Your task to perform on an android device: Open a new window in Chrome Image 0: 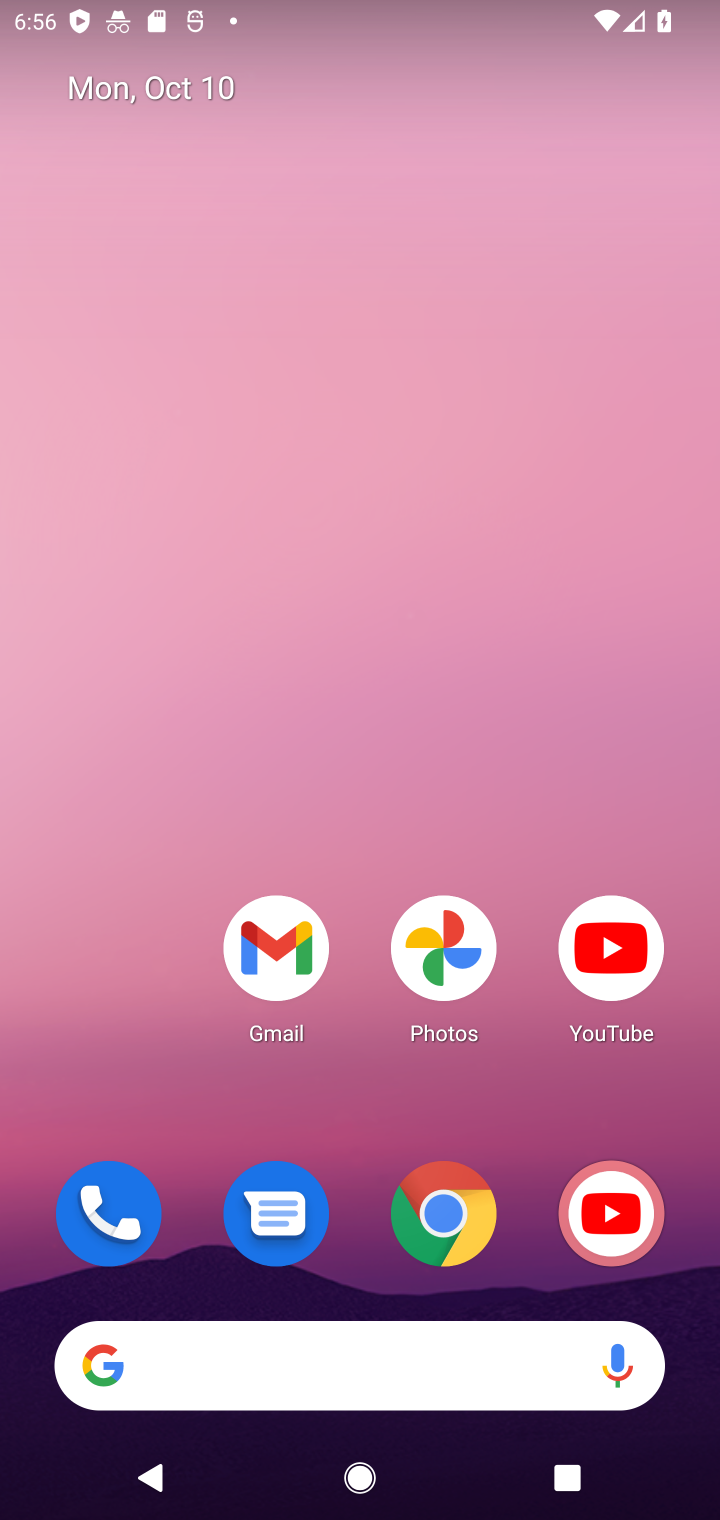
Step 0: click (437, 1198)
Your task to perform on an android device: Open a new window in Chrome Image 1: 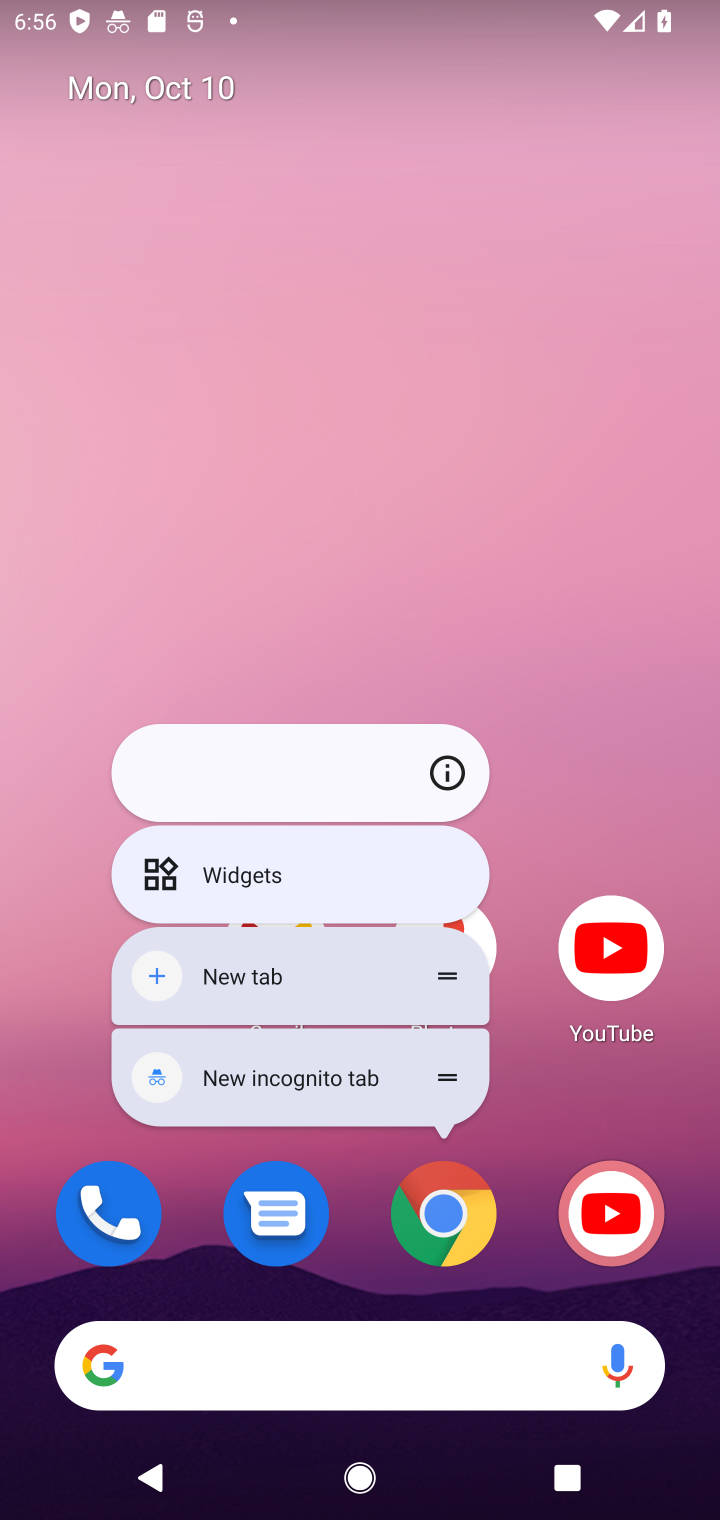
Step 1: click (472, 1204)
Your task to perform on an android device: Open a new window in Chrome Image 2: 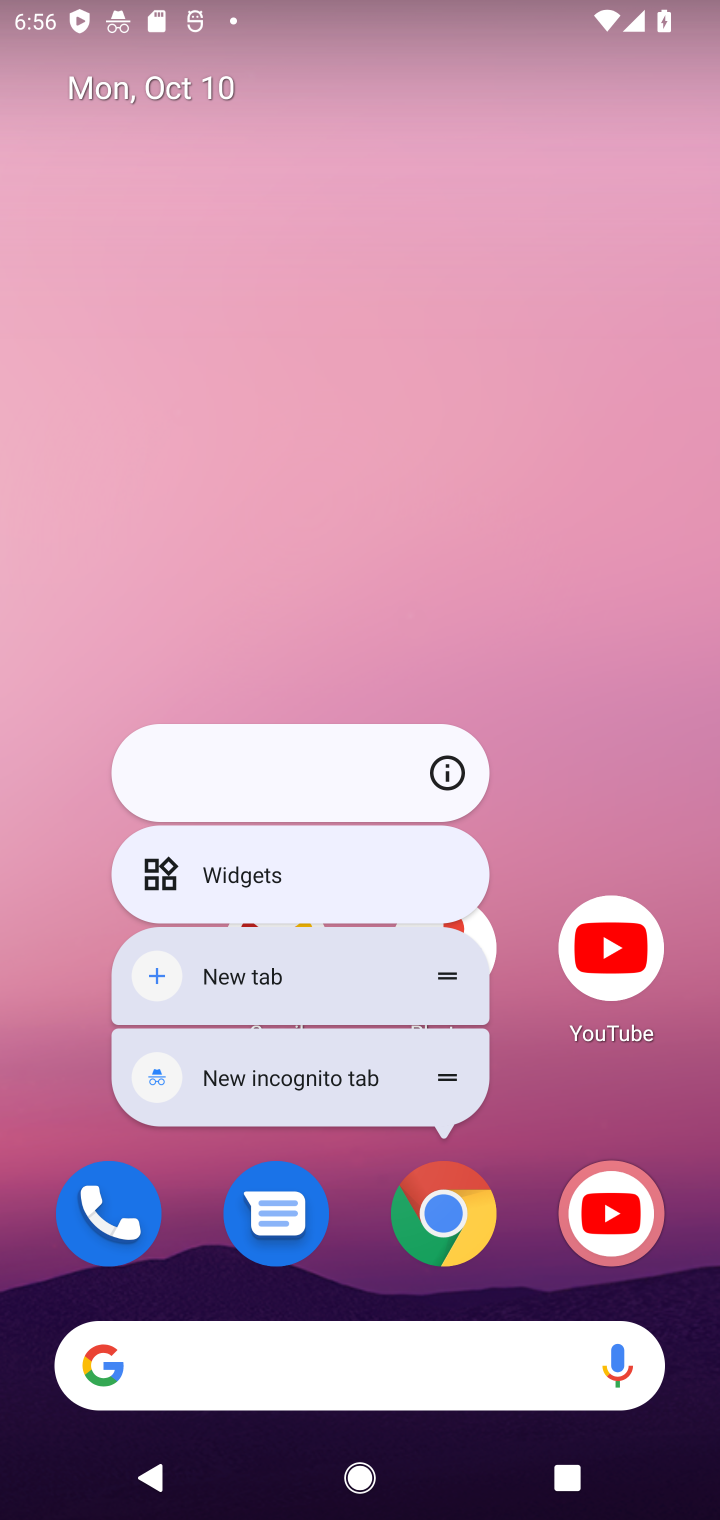
Step 2: click (435, 1223)
Your task to perform on an android device: Open a new window in Chrome Image 3: 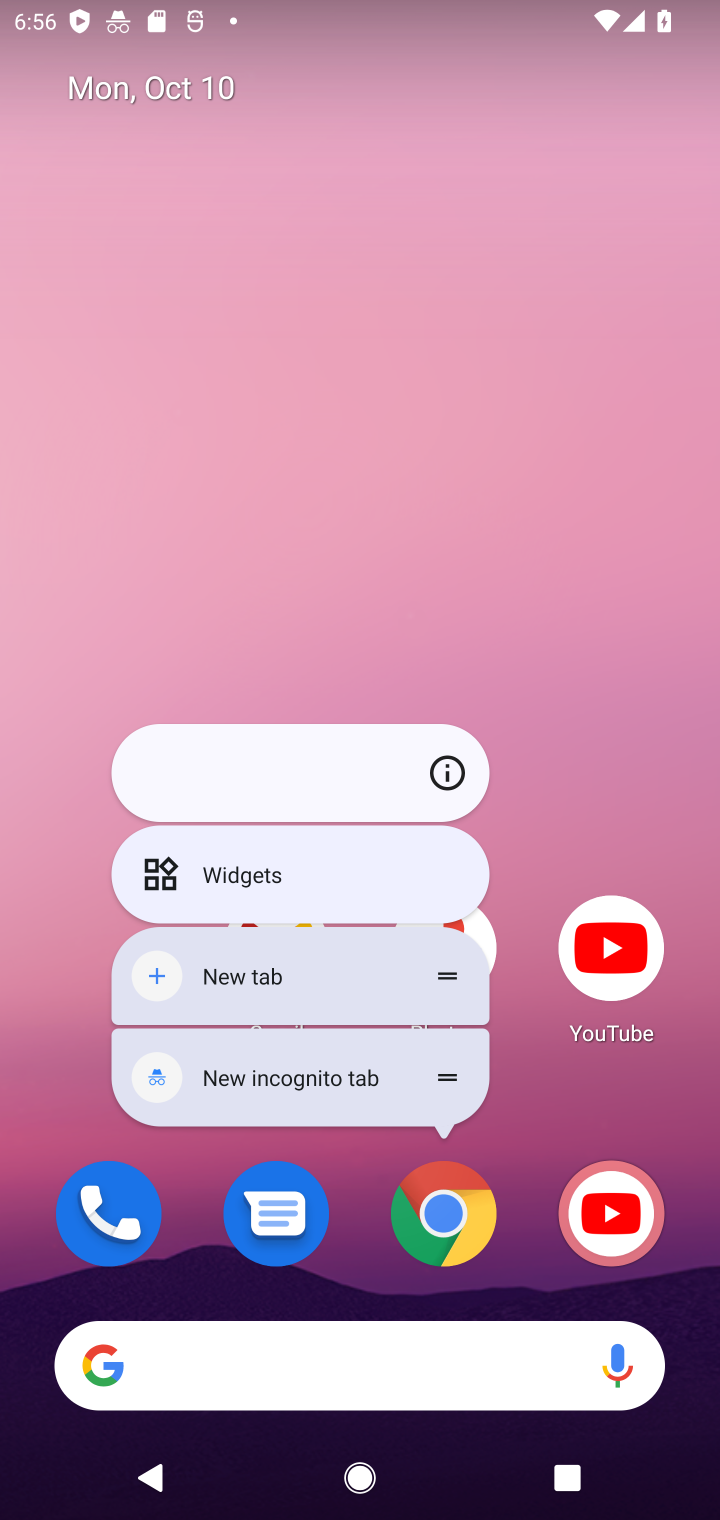
Step 3: click (433, 1217)
Your task to perform on an android device: Open a new window in Chrome Image 4: 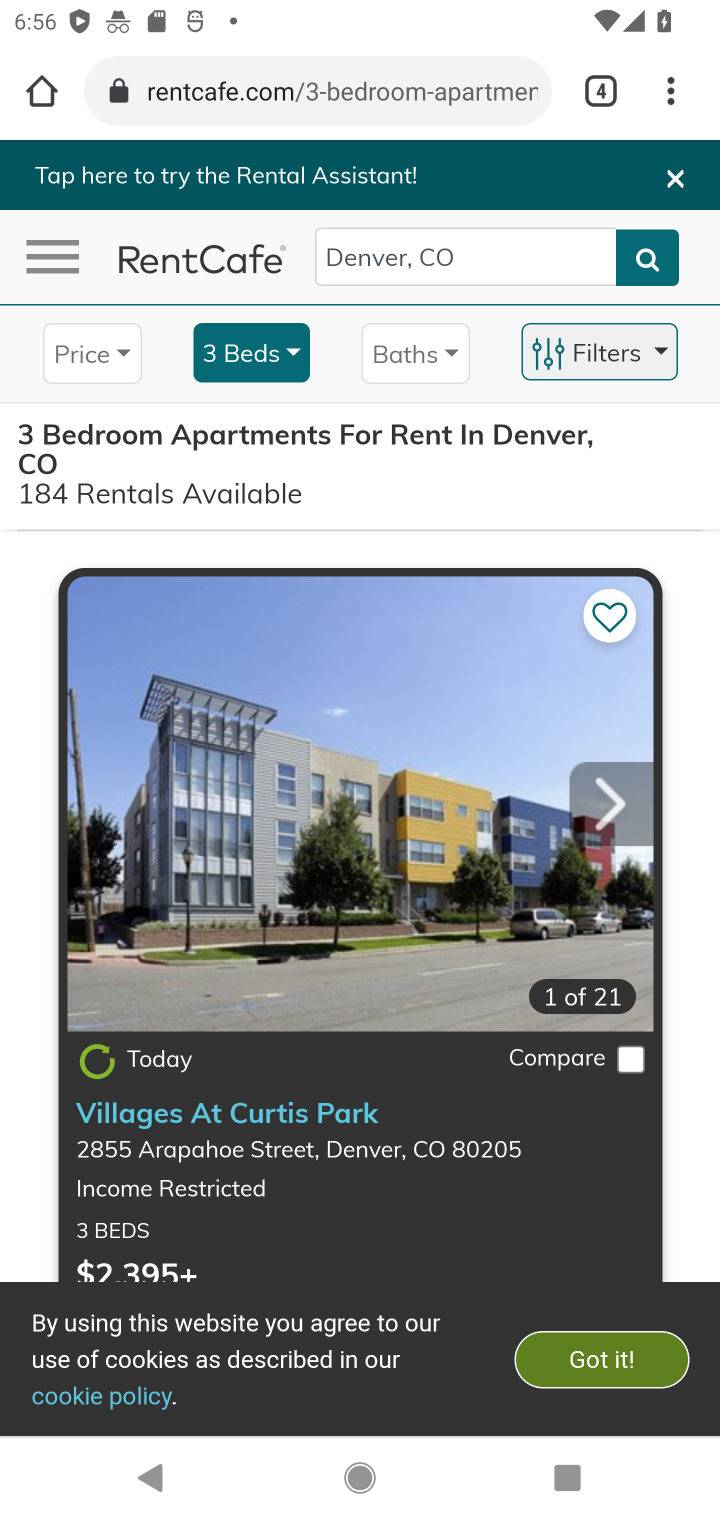
Step 4: click (590, 95)
Your task to perform on an android device: Open a new window in Chrome Image 5: 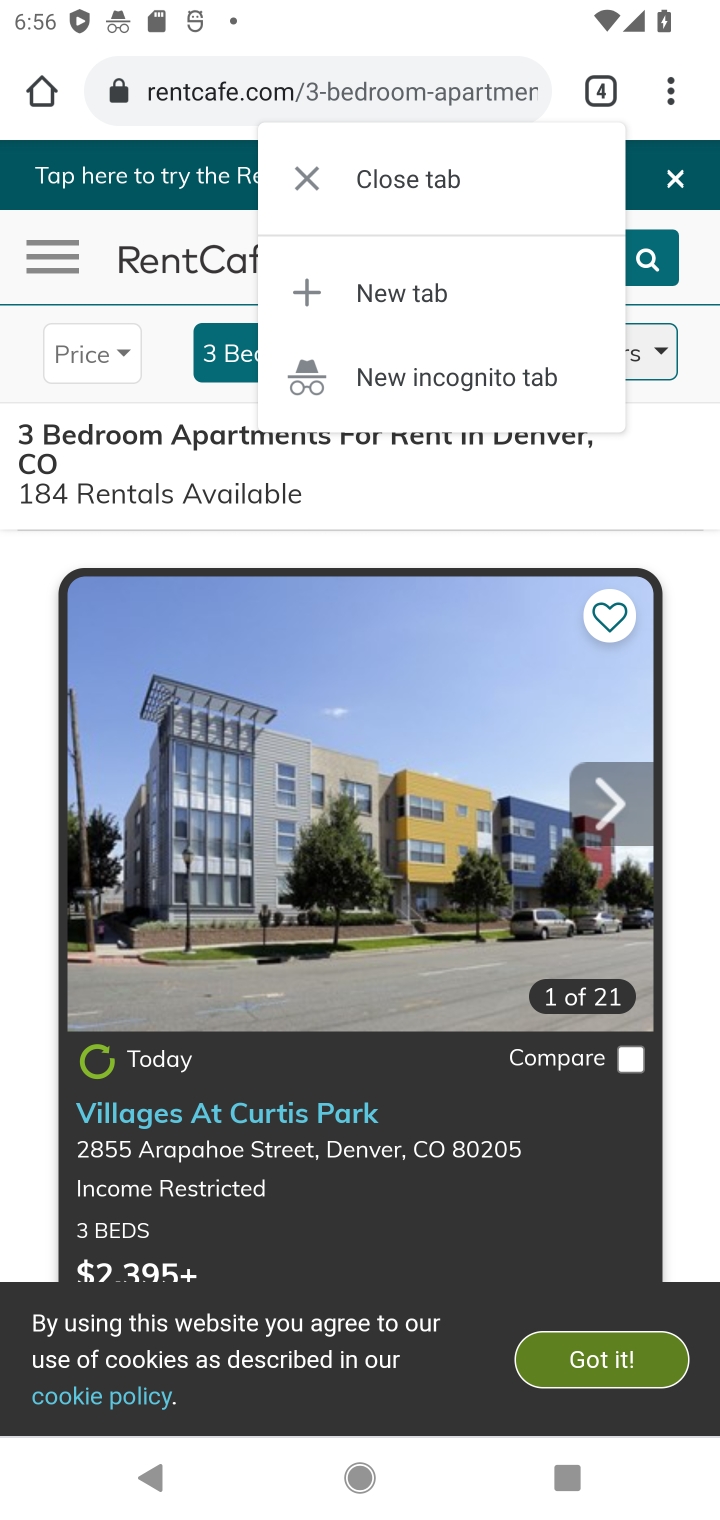
Step 5: click (322, 273)
Your task to perform on an android device: Open a new window in Chrome Image 6: 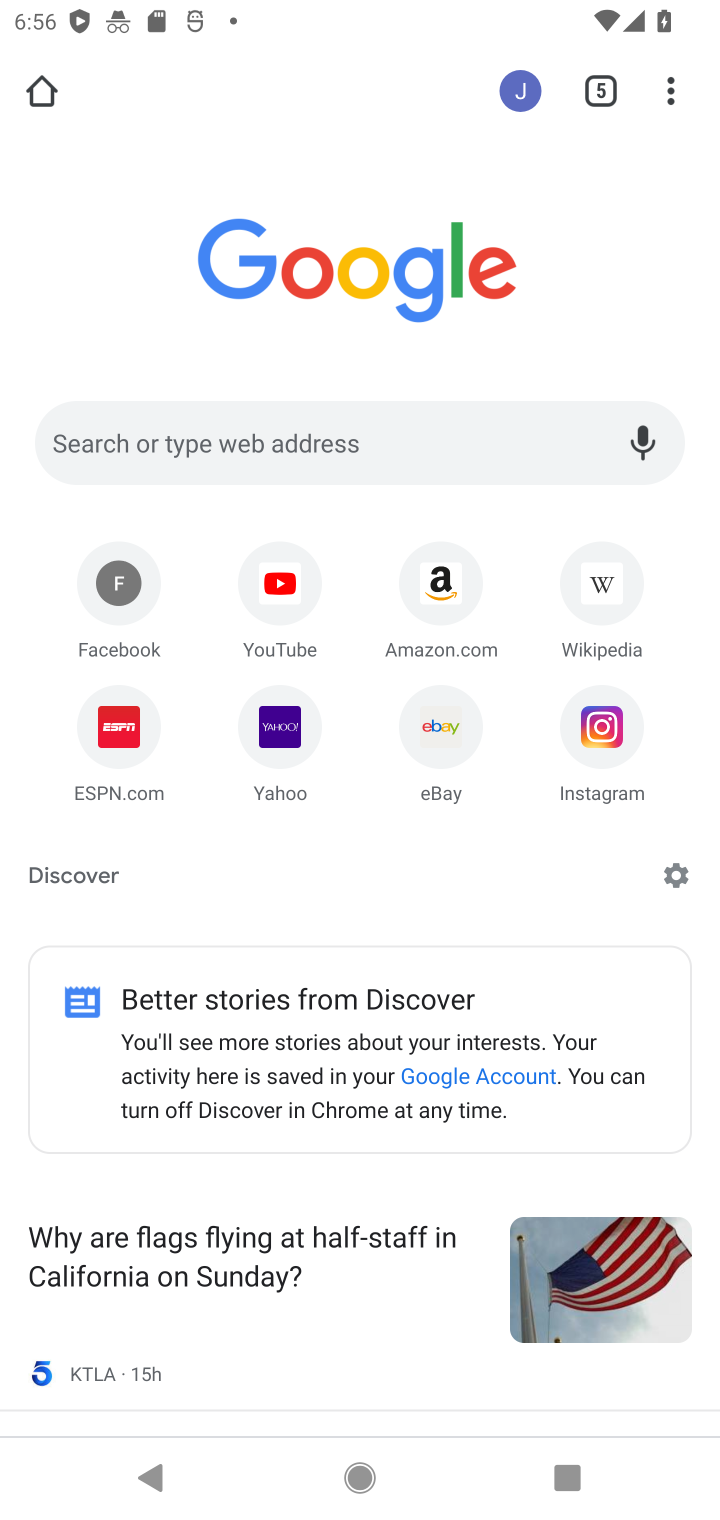
Step 6: task complete